Your task to perform on an android device: open device folders in google photos Image 0: 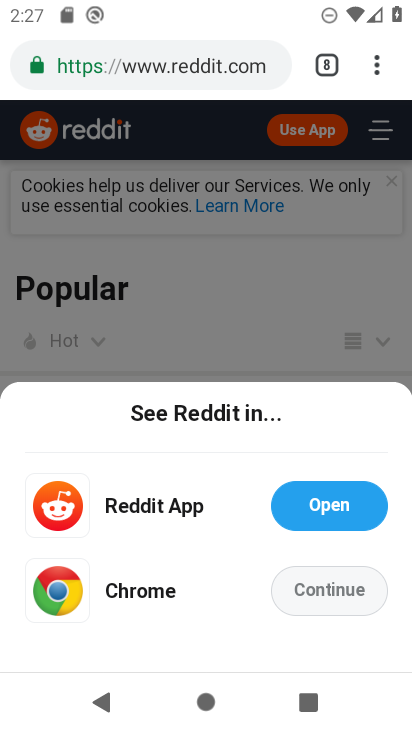
Step 0: press home button
Your task to perform on an android device: open device folders in google photos Image 1: 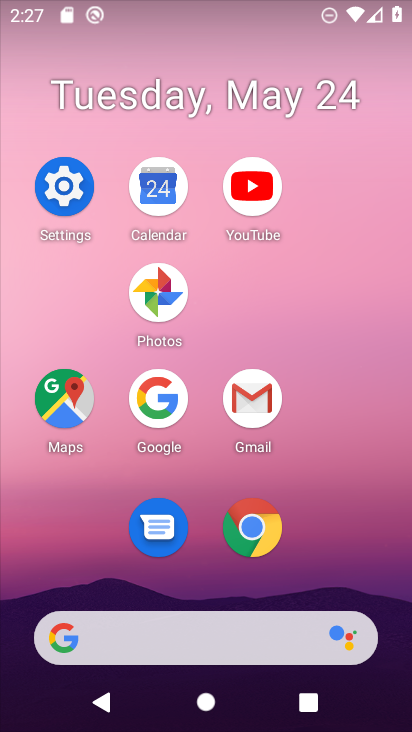
Step 1: click (162, 294)
Your task to perform on an android device: open device folders in google photos Image 2: 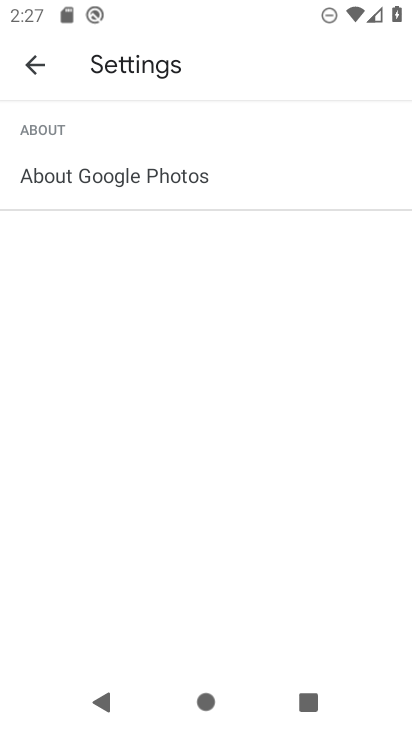
Step 2: click (29, 78)
Your task to perform on an android device: open device folders in google photos Image 3: 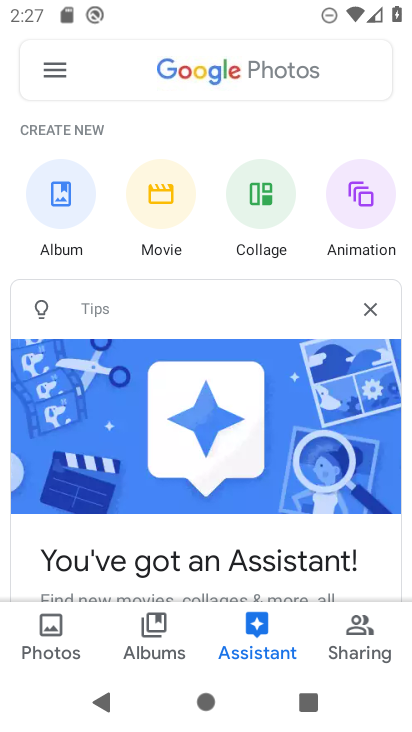
Step 3: click (53, 69)
Your task to perform on an android device: open device folders in google photos Image 4: 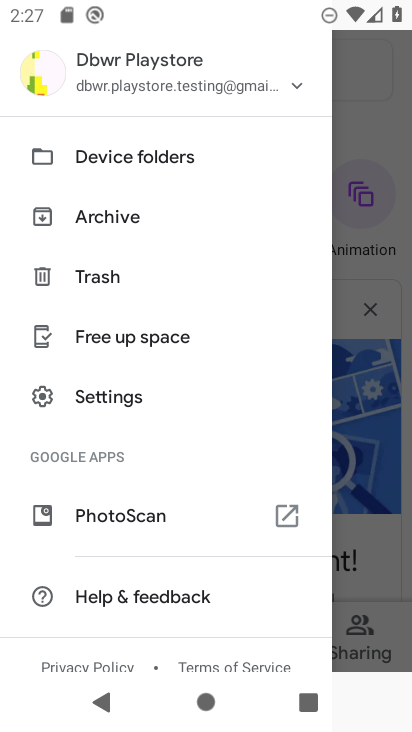
Step 4: click (128, 164)
Your task to perform on an android device: open device folders in google photos Image 5: 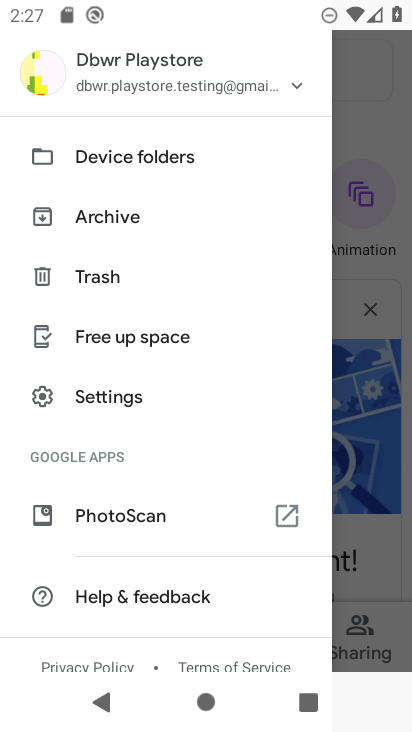
Step 5: click (164, 146)
Your task to perform on an android device: open device folders in google photos Image 6: 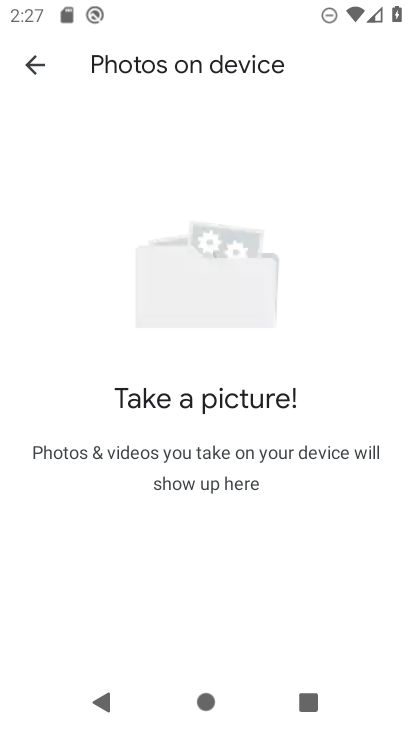
Step 6: task complete